Your task to perform on an android device: turn on notifications settings in the gmail app Image 0: 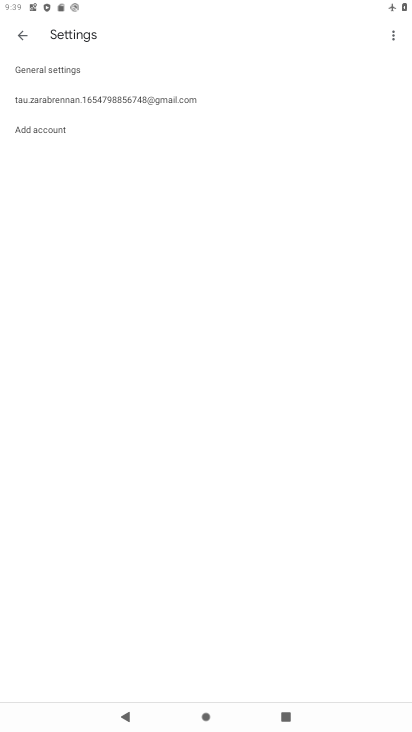
Step 0: click (138, 98)
Your task to perform on an android device: turn on notifications settings in the gmail app Image 1: 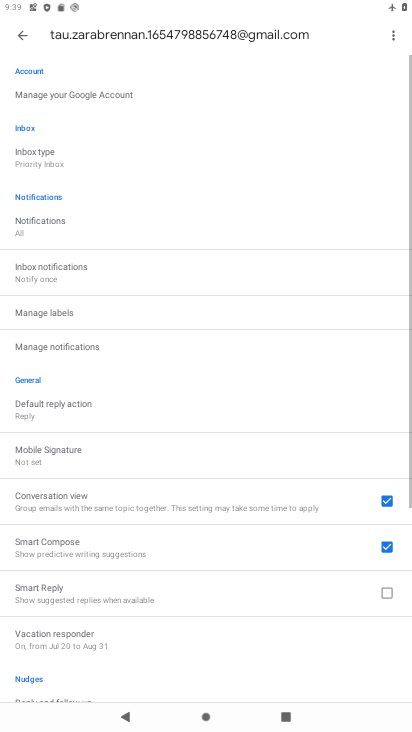
Step 1: click (90, 353)
Your task to perform on an android device: turn on notifications settings in the gmail app Image 2: 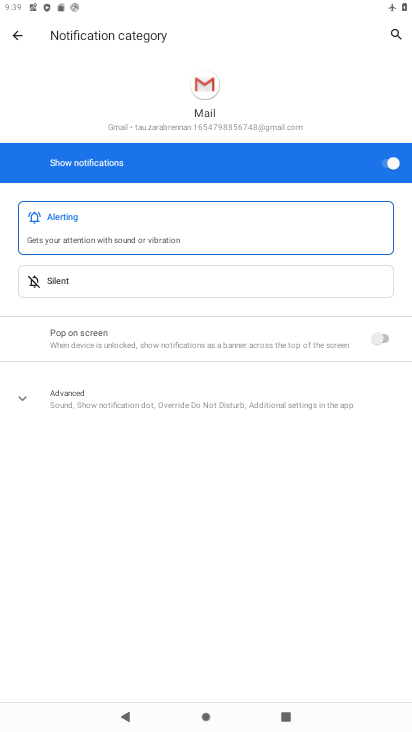
Step 2: click (389, 156)
Your task to perform on an android device: turn on notifications settings in the gmail app Image 3: 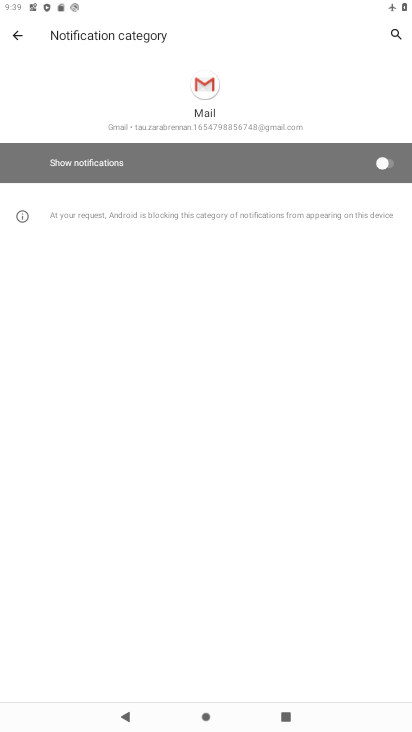
Step 3: task complete